Your task to perform on an android device: change timer sound Image 0: 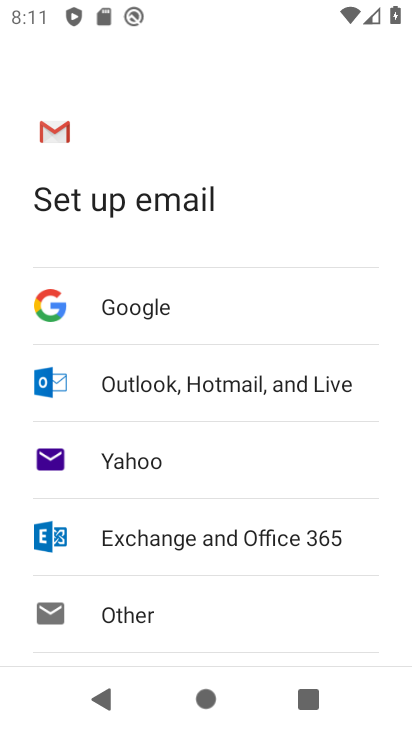
Step 0: press back button
Your task to perform on an android device: change timer sound Image 1: 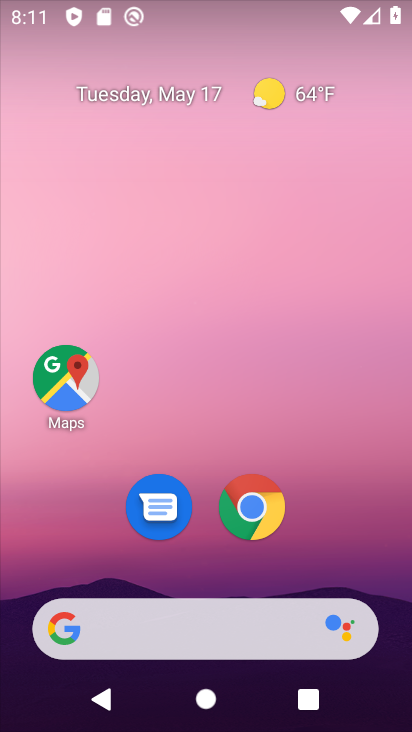
Step 1: drag from (324, 547) to (246, 59)
Your task to perform on an android device: change timer sound Image 2: 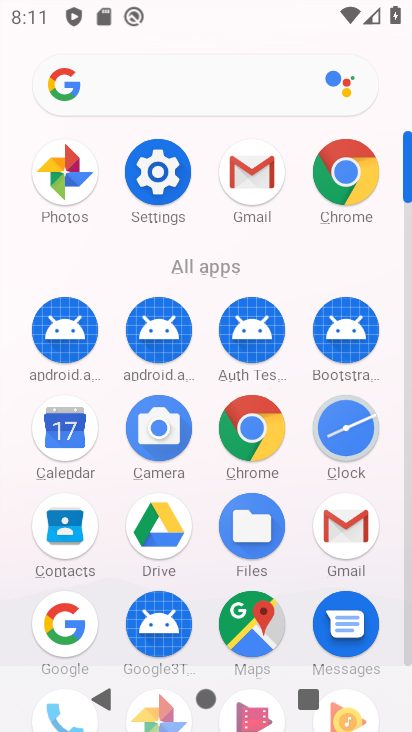
Step 2: click (346, 428)
Your task to perform on an android device: change timer sound Image 3: 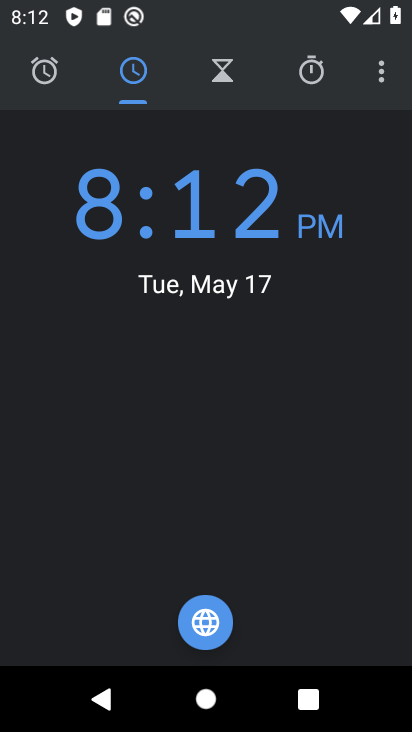
Step 3: click (383, 72)
Your task to perform on an android device: change timer sound Image 4: 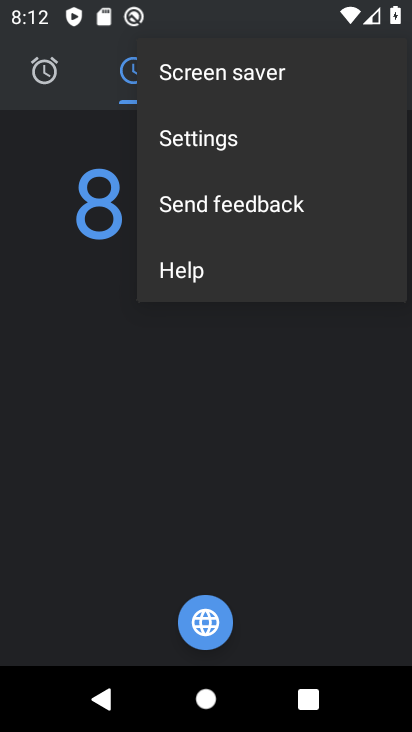
Step 4: click (219, 141)
Your task to perform on an android device: change timer sound Image 5: 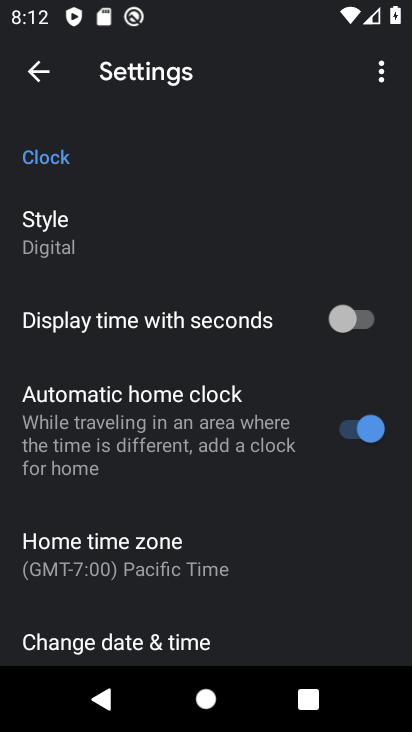
Step 5: drag from (185, 492) to (195, 372)
Your task to perform on an android device: change timer sound Image 6: 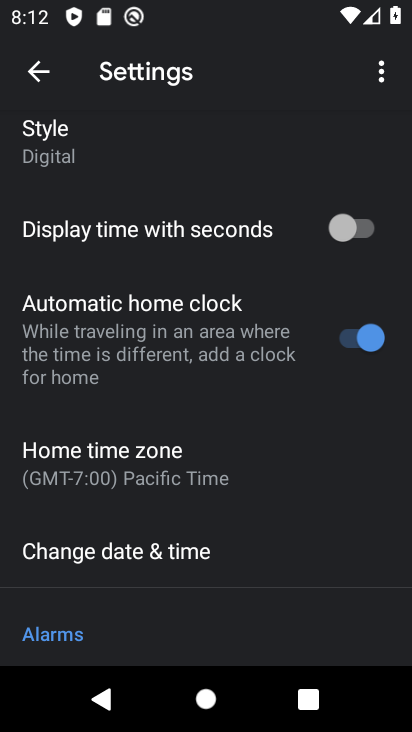
Step 6: drag from (140, 500) to (185, 371)
Your task to perform on an android device: change timer sound Image 7: 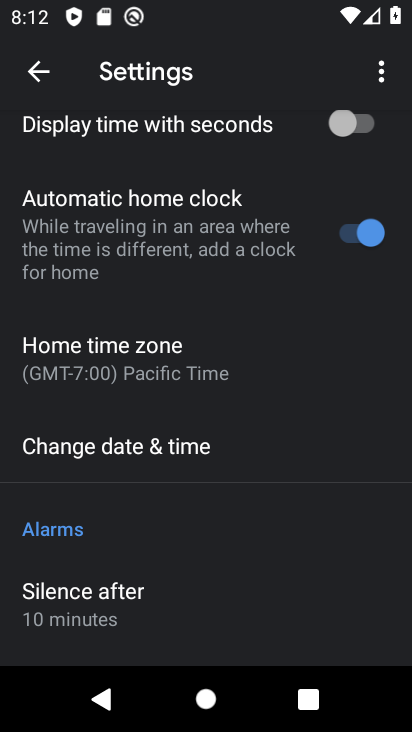
Step 7: drag from (135, 517) to (175, 407)
Your task to perform on an android device: change timer sound Image 8: 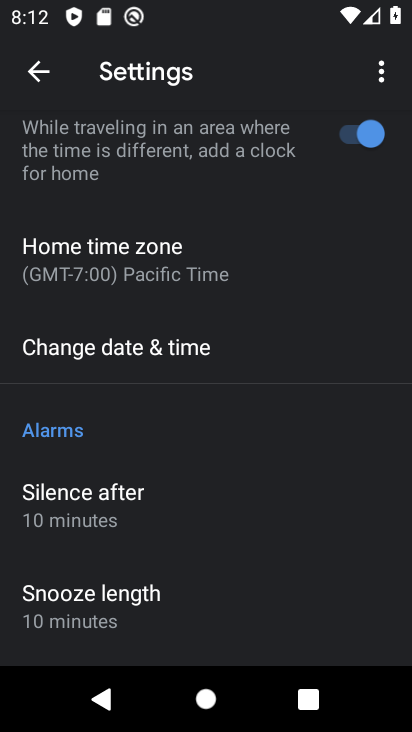
Step 8: drag from (133, 558) to (184, 371)
Your task to perform on an android device: change timer sound Image 9: 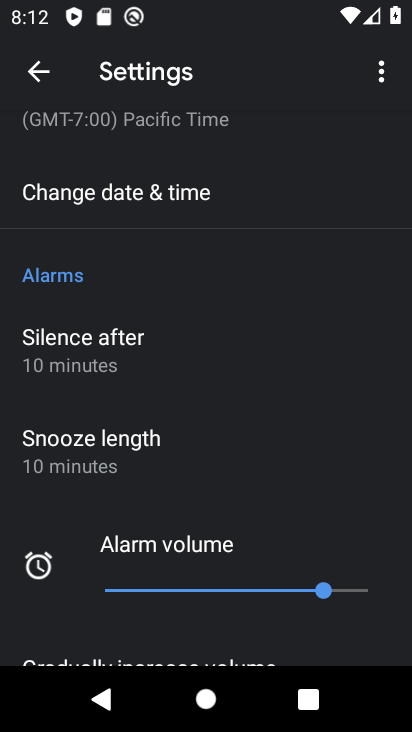
Step 9: drag from (135, 493) to (180, 339)
Your task to perform on an android device: change timer sound Image 10: 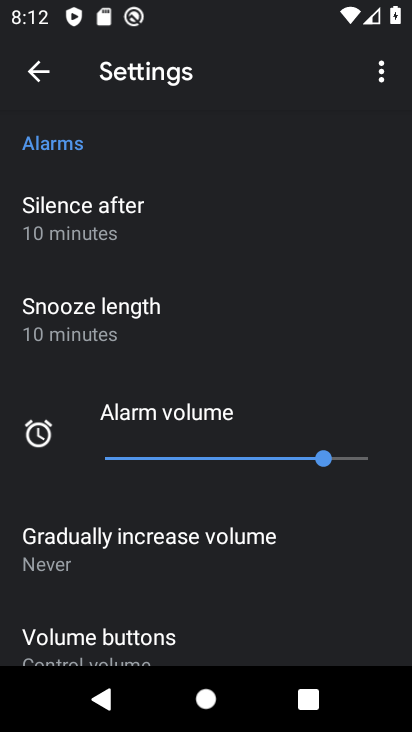
Step 10: drag from (142, 593) to (174, 472)
Your task to perform on an android device: change timer sound Image 11: 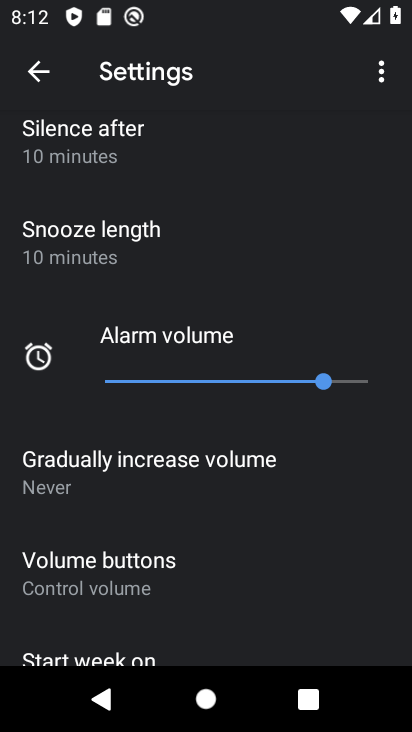
Step 11: drag from (136, 530) to (239, 384)
Your task to perform on an android device: change timer sound Image 12: 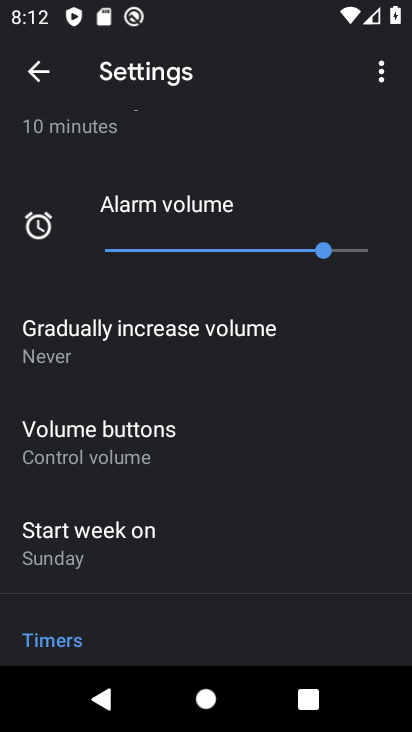
Step 12: drag from (186, 511) to (246, 411)
Your task to perform on an android device: change timer sound Image 13: 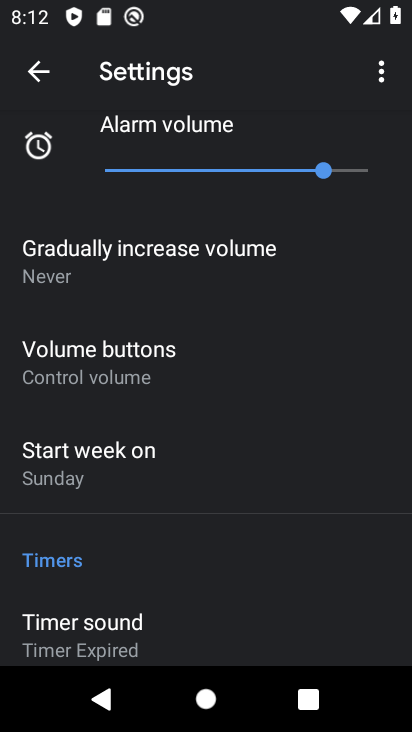
Step 13: drag from (188, 566) to (286, 398)
Your task to perform on an android device: change timer sound Image 14: 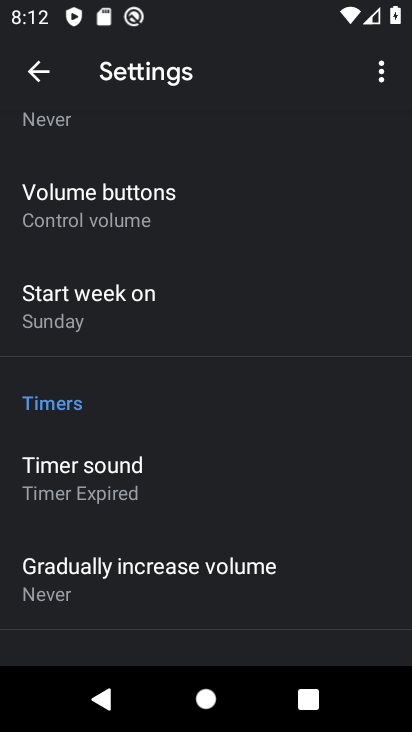
Step 14: click (100, 484)
Your task to perform on an android device: change timer sound Image 15: 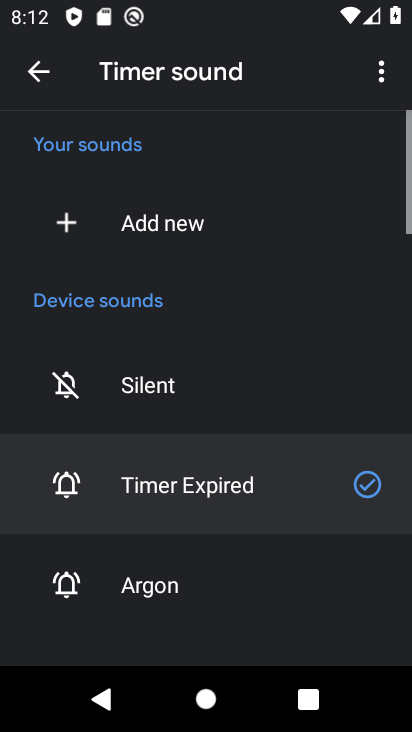
Step 15: drag from (146, 530) to (196, 289)
Your task to perform on an android device: change timer sound Image 16: 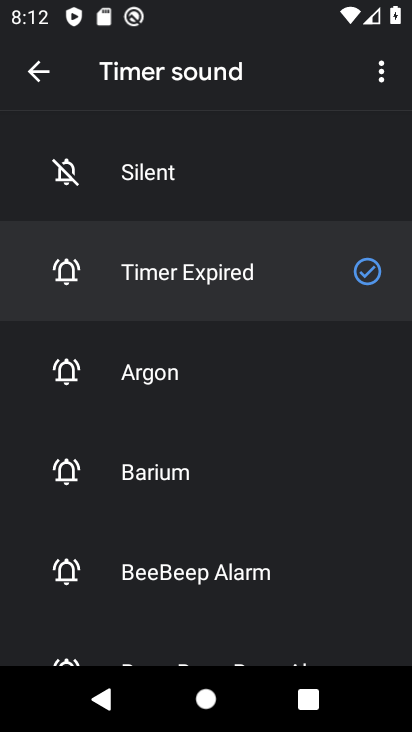
Step 16: click (180, 475)
Your task to perform on an android device: change timer sound Image 17: 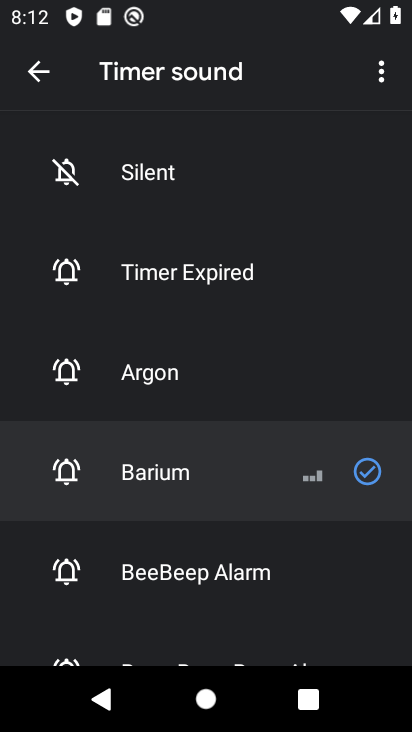
Step 17: task complete